Your task to perform on an android device: open chrome privacy settings Image 0: 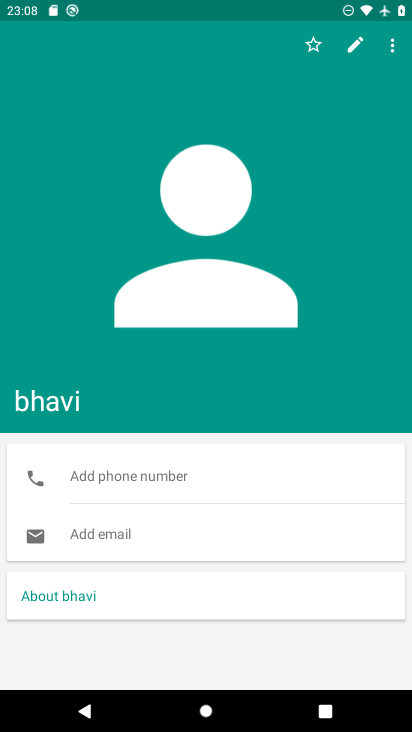
Step 0: press home button
Your task to perform on an android device: open chrome privacy settings Image 1: 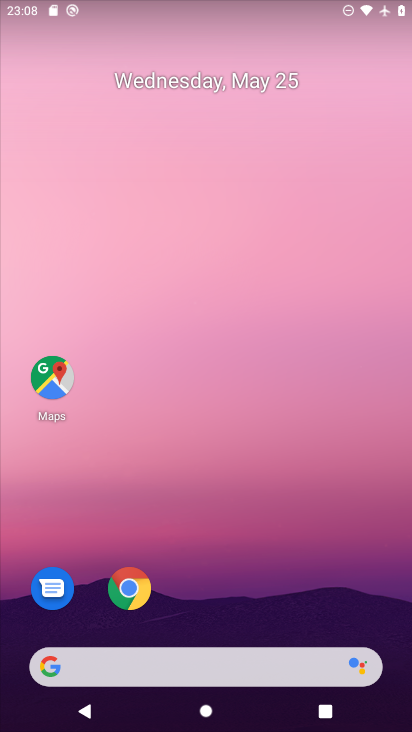
Step 1: drag from (234, 570) to (180, 177)
Your task to perform on an android device: open chrome privacy settings Image 2: 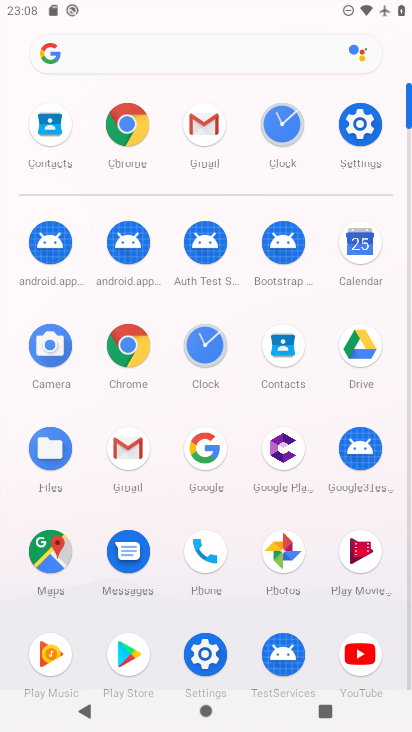
Step 2: click (364, 127)
Your task to perform on an android device: open chrome privacy settings Image 3: 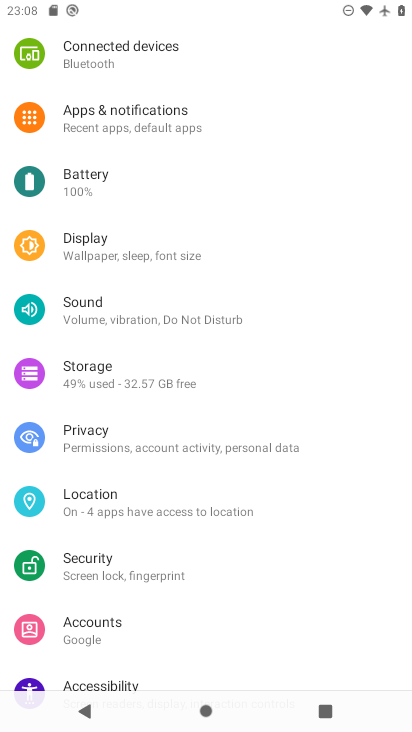
Step 3: drag from (224, 565) to (137, 211)
Your task to perform on an android device: open chrome privacy settings Image 4: 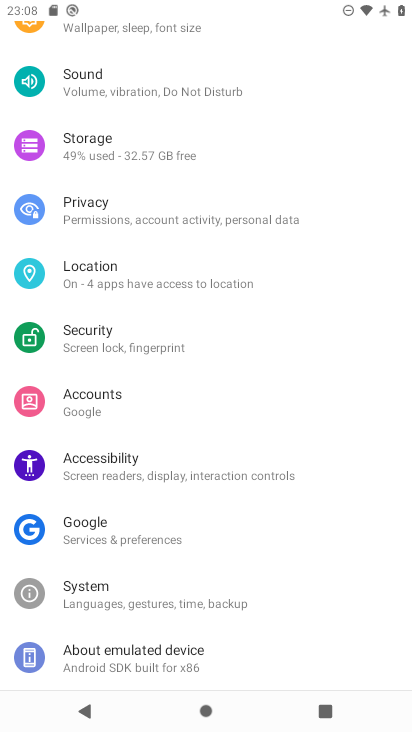
Step 4: click (121, 214)
Your task to perform on an android device: open chrome privacy settings Image 5: 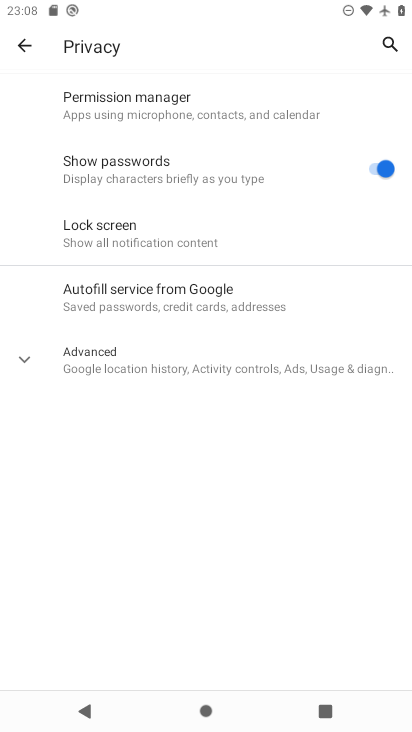
Step 5: task complete